Your task to perform on an android device: uninstall "PlayWell" Image 0: 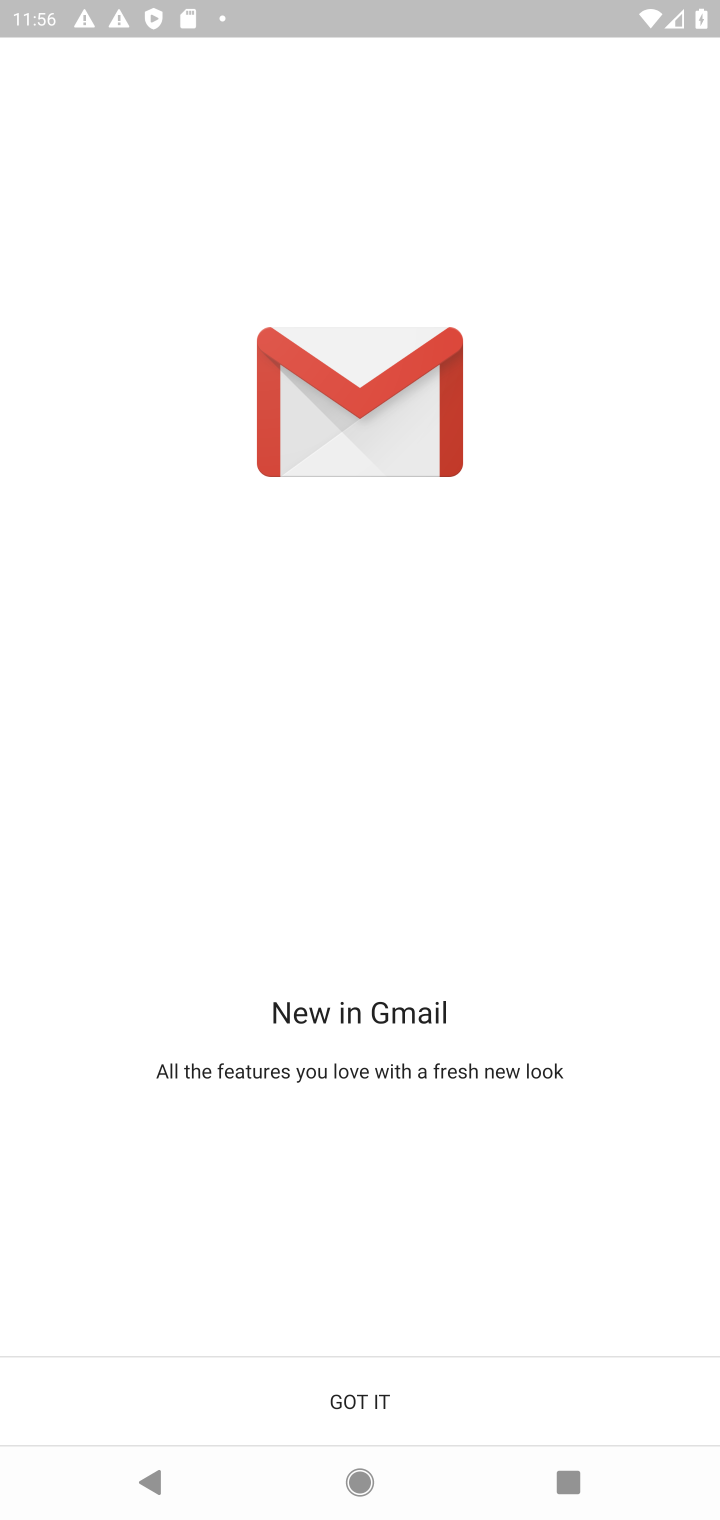
Step 0: press home button
Your task to perform on an android device: uninstall "PlayWell" Image 1: 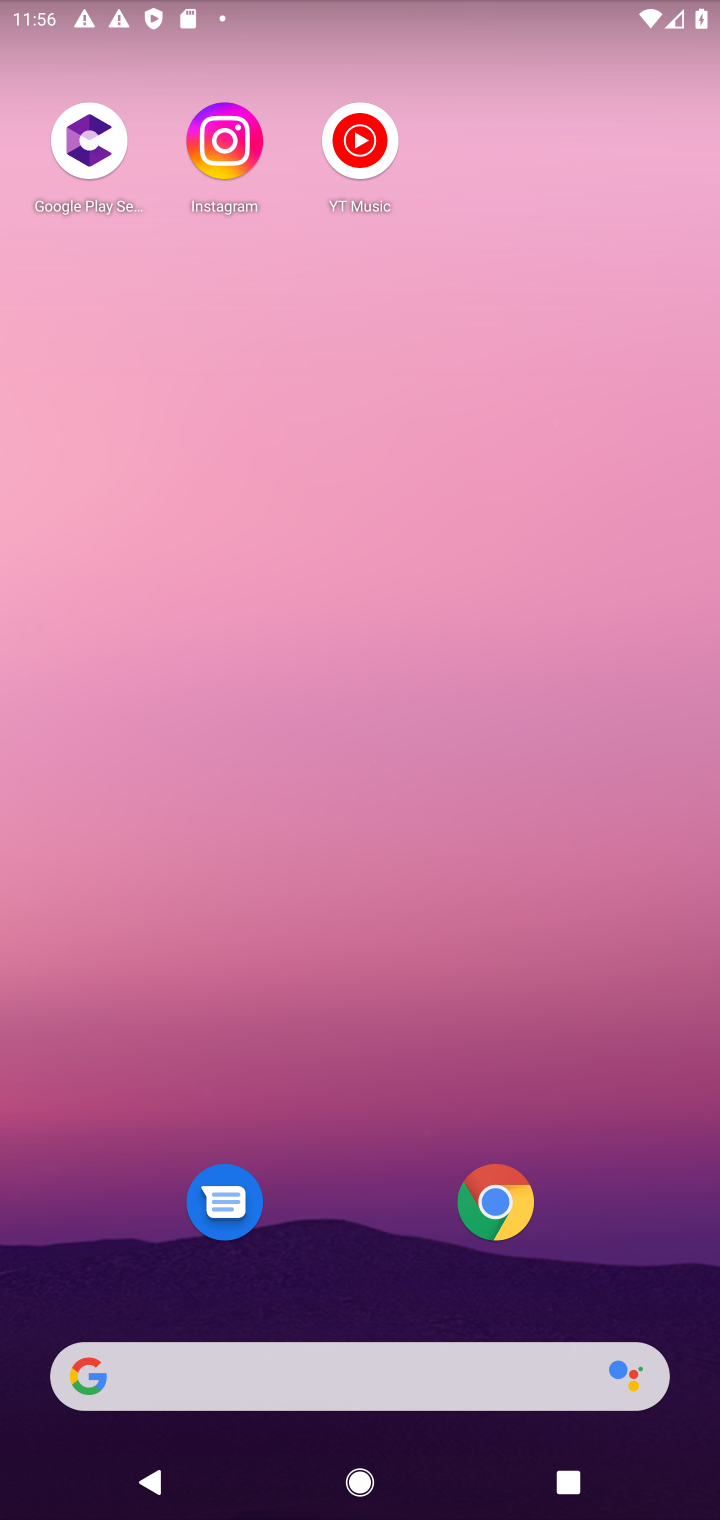
Step 1: drag from (467, 1440) to (429, 276)
Your task to perform on an android device: uninstall "PlayWell" Image 2: 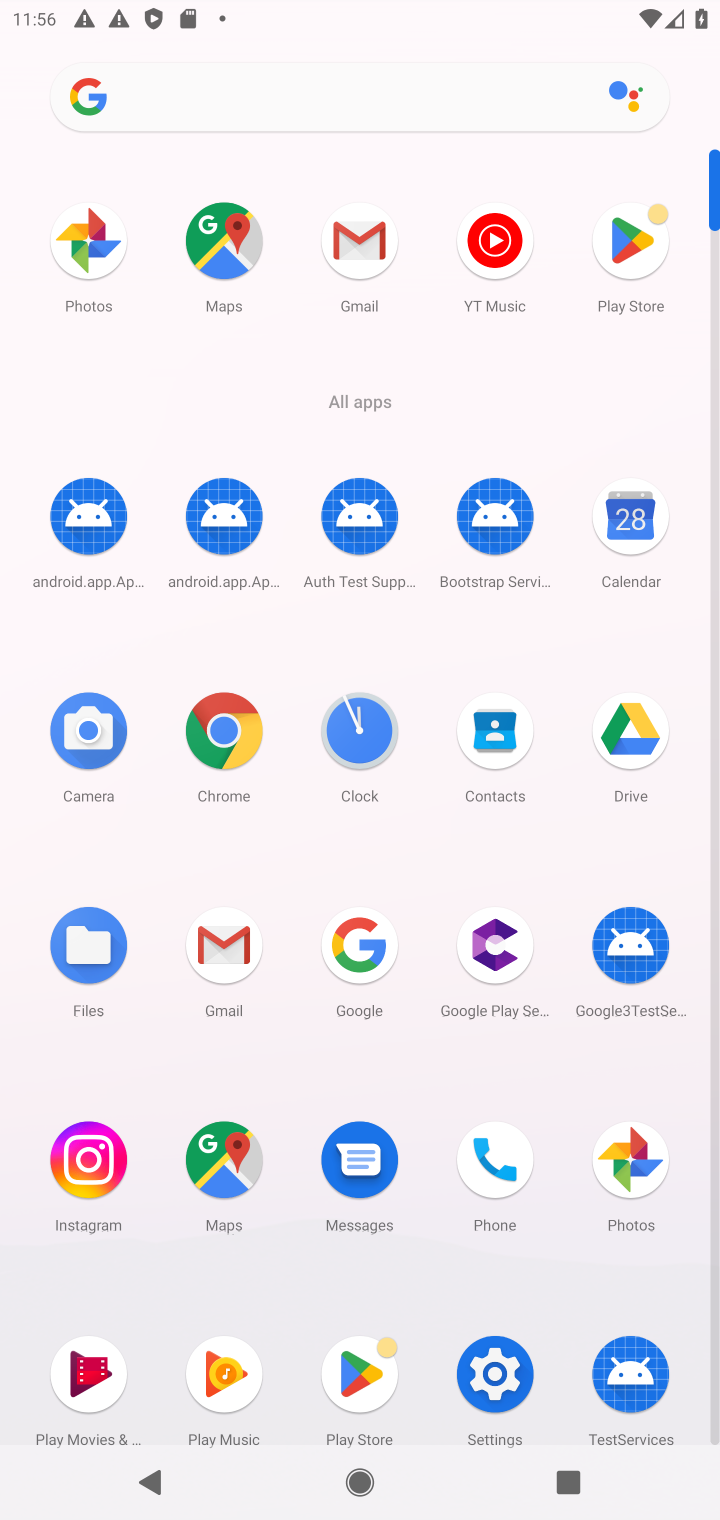
Step 2: click (641, 242)
Your task to perform on an android device: uninstall "PlayWell" Image 3: 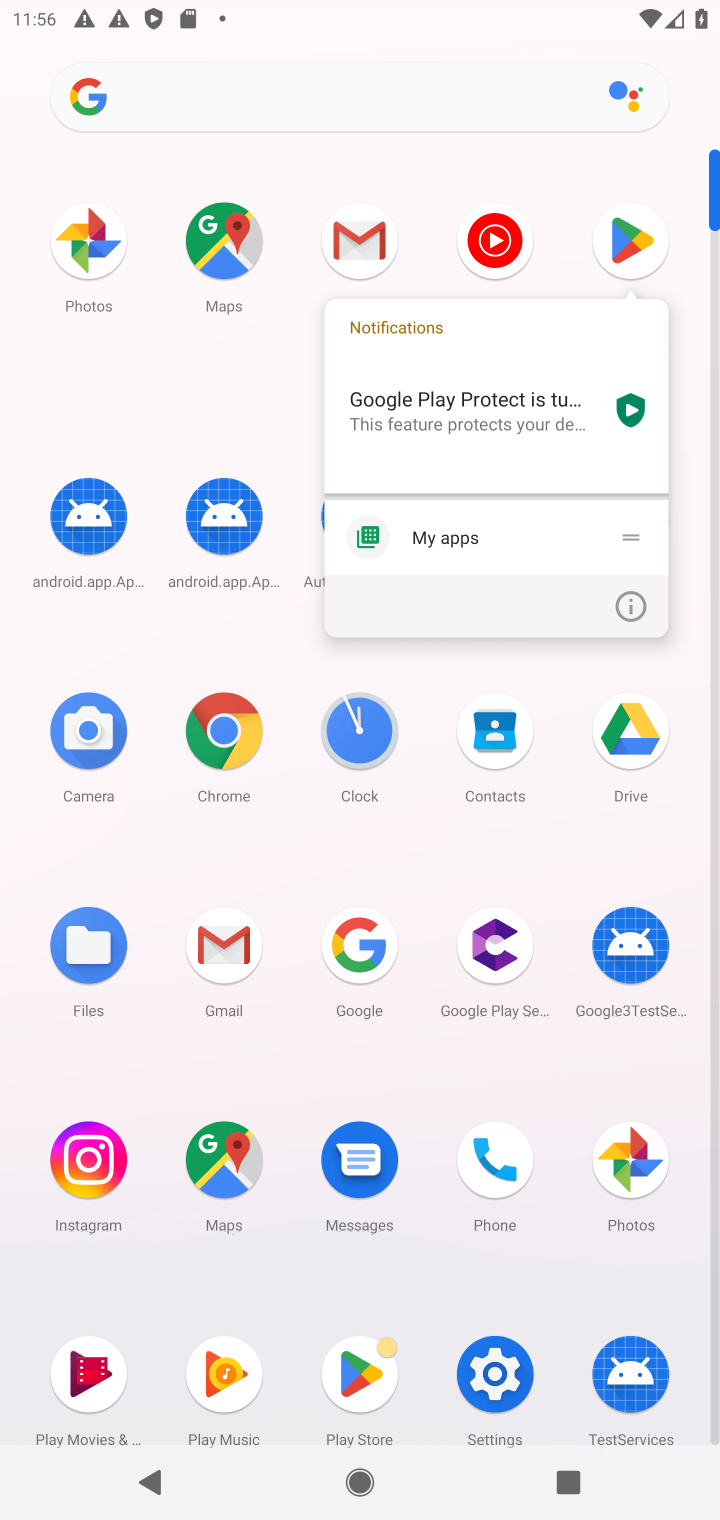
Step 3: click (641, 242)
Your task to perform on an android device: uninstall "PlayWell" Image 4: 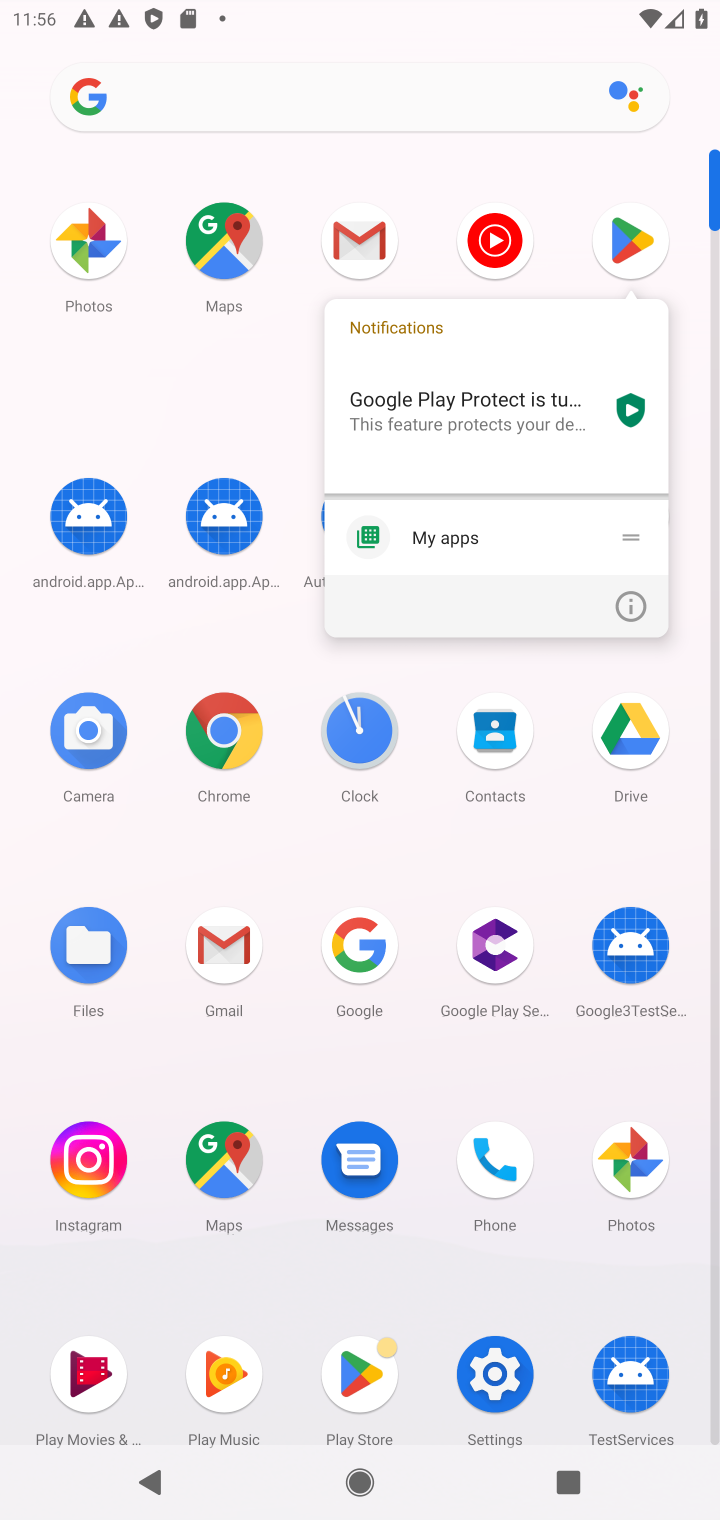
Step 4: click (631, 217)
Your task to perform on an android device: uninstall "PlayWell" Image 5: 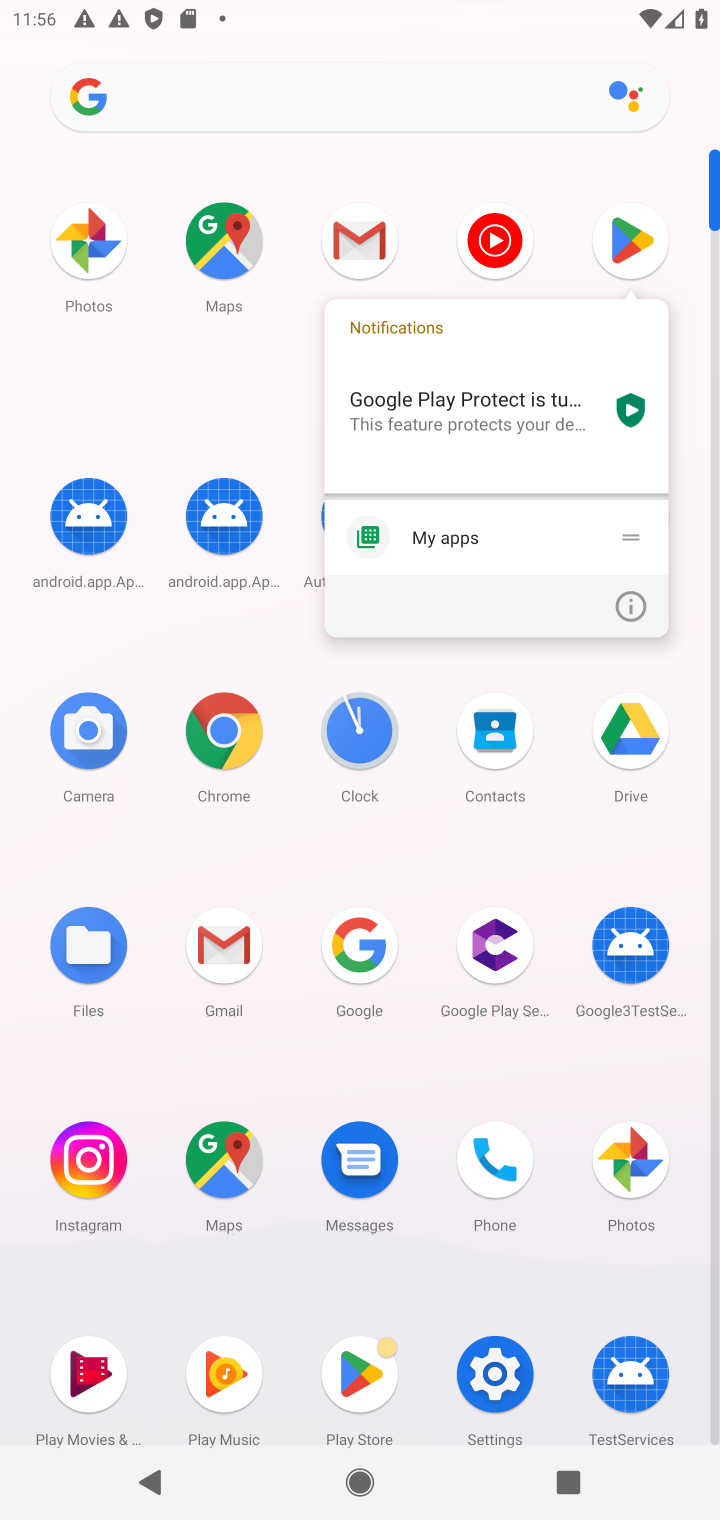
Step 5: click (631, 217)
Your task to perform on an android device: uninstall "PlayWell" Image 6: 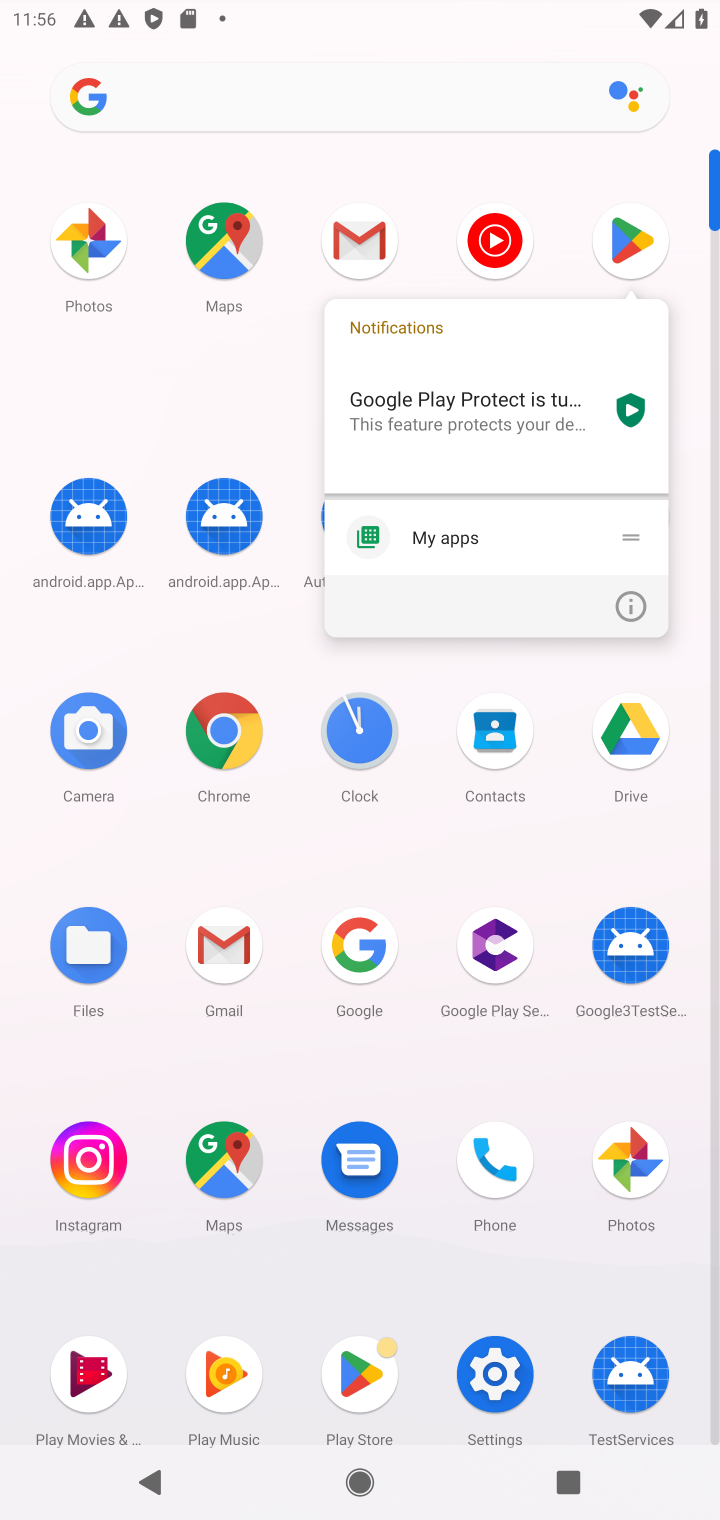
Step 6: click (625, 224)
Your task to perform on an android device: uninstall "PlayWell" Image 7: 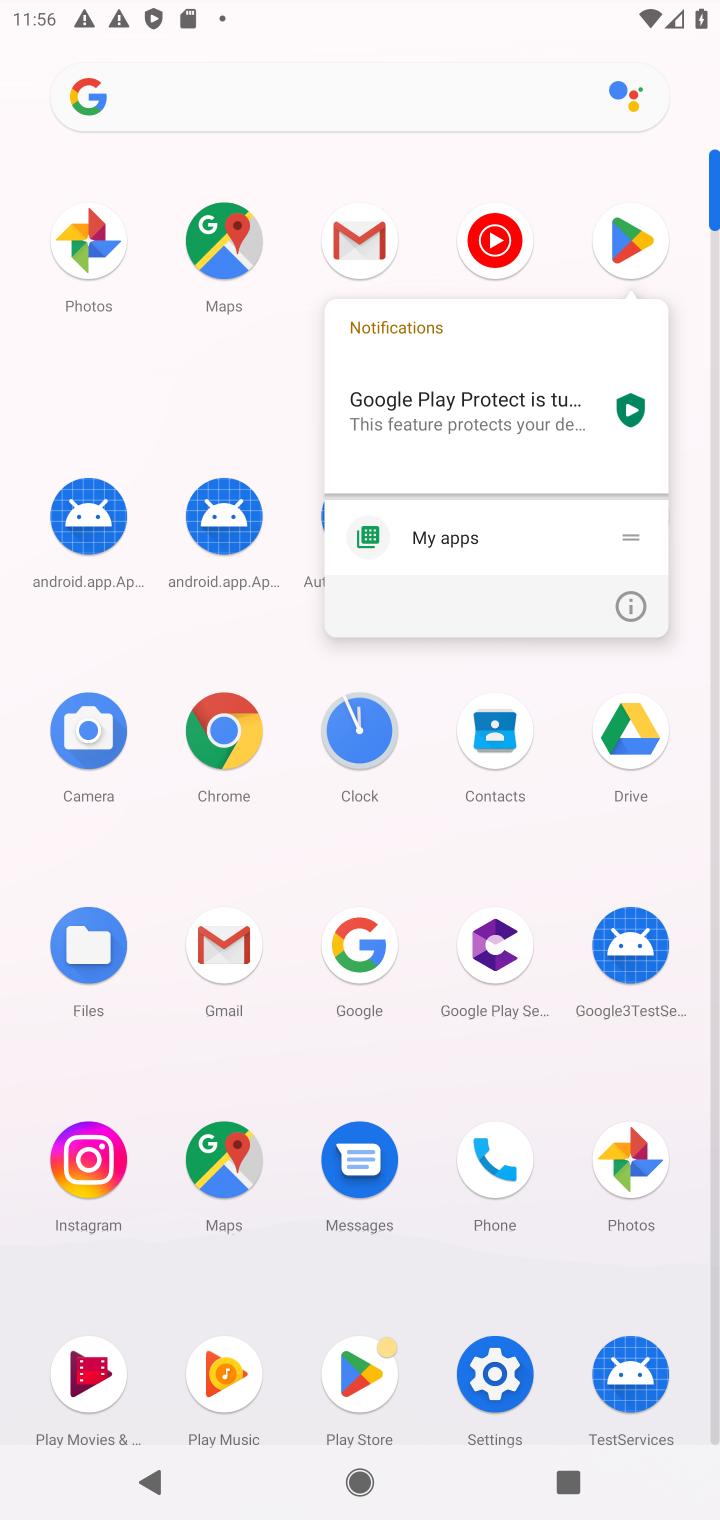
Step 7: click (625, 224)
Your task to perform on an android device: uninstall "PlayWell" Image 8: 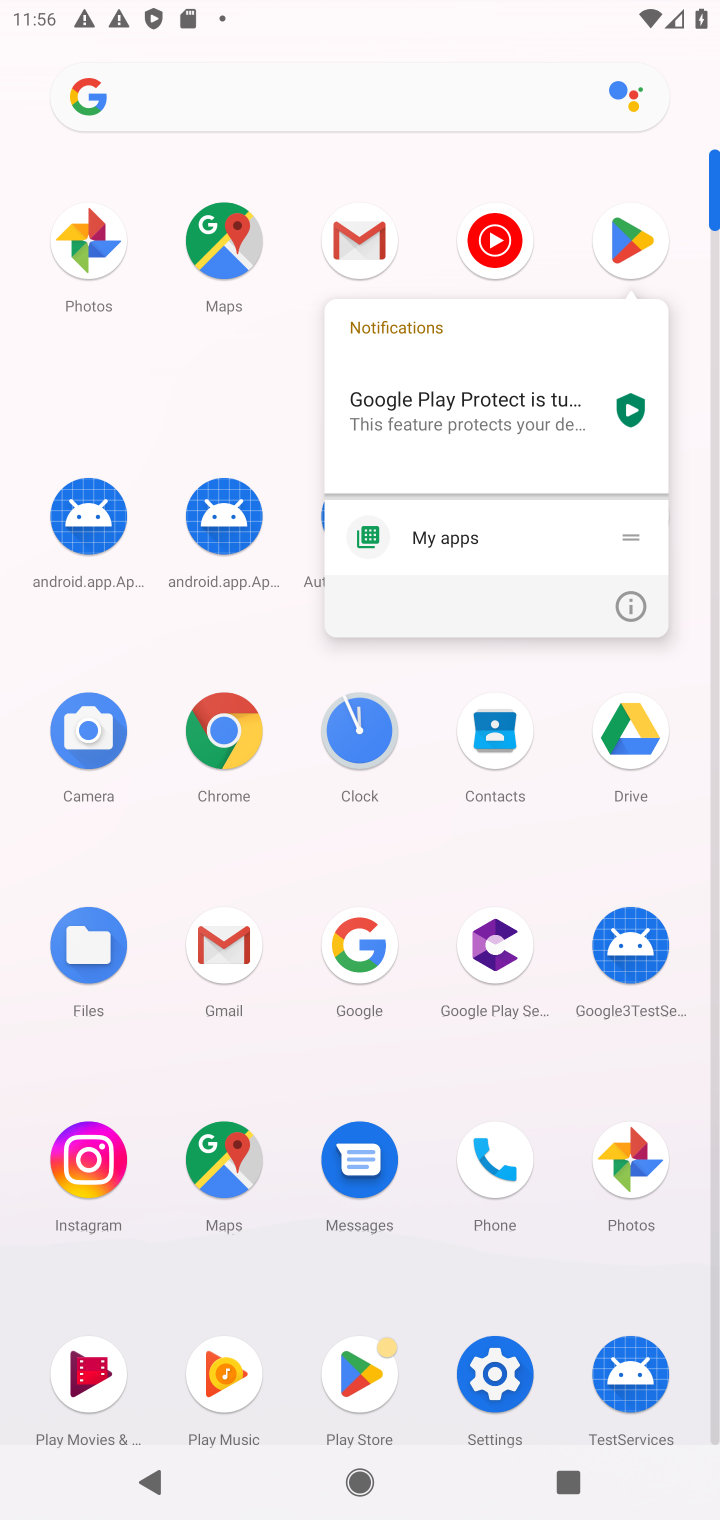
Step 8: click (625, 224)
Your task to perform on an android device: uninstall "PlayWell" Image 9: 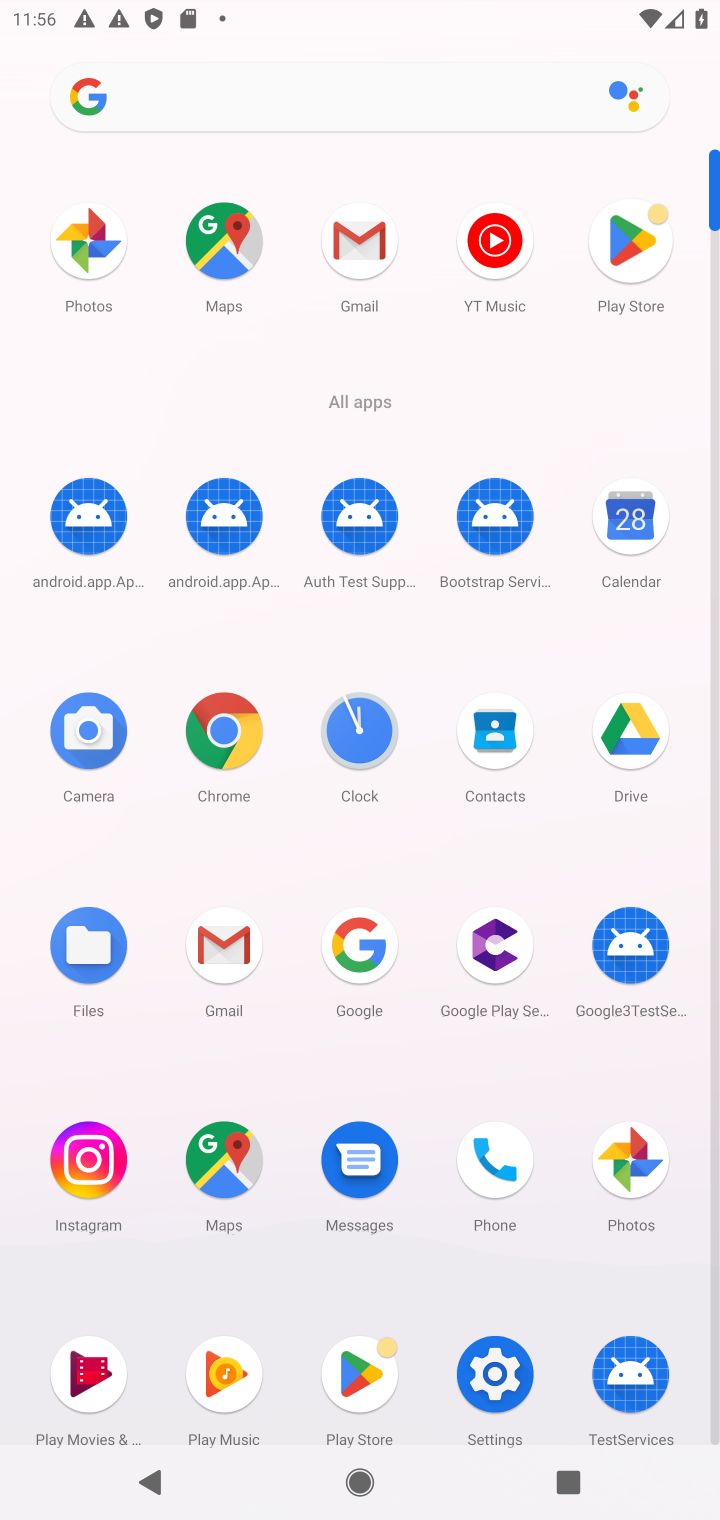
Step 9: click (625, 224)
Your task to perform on an android device: uninstall "PlayWell" Image 10: 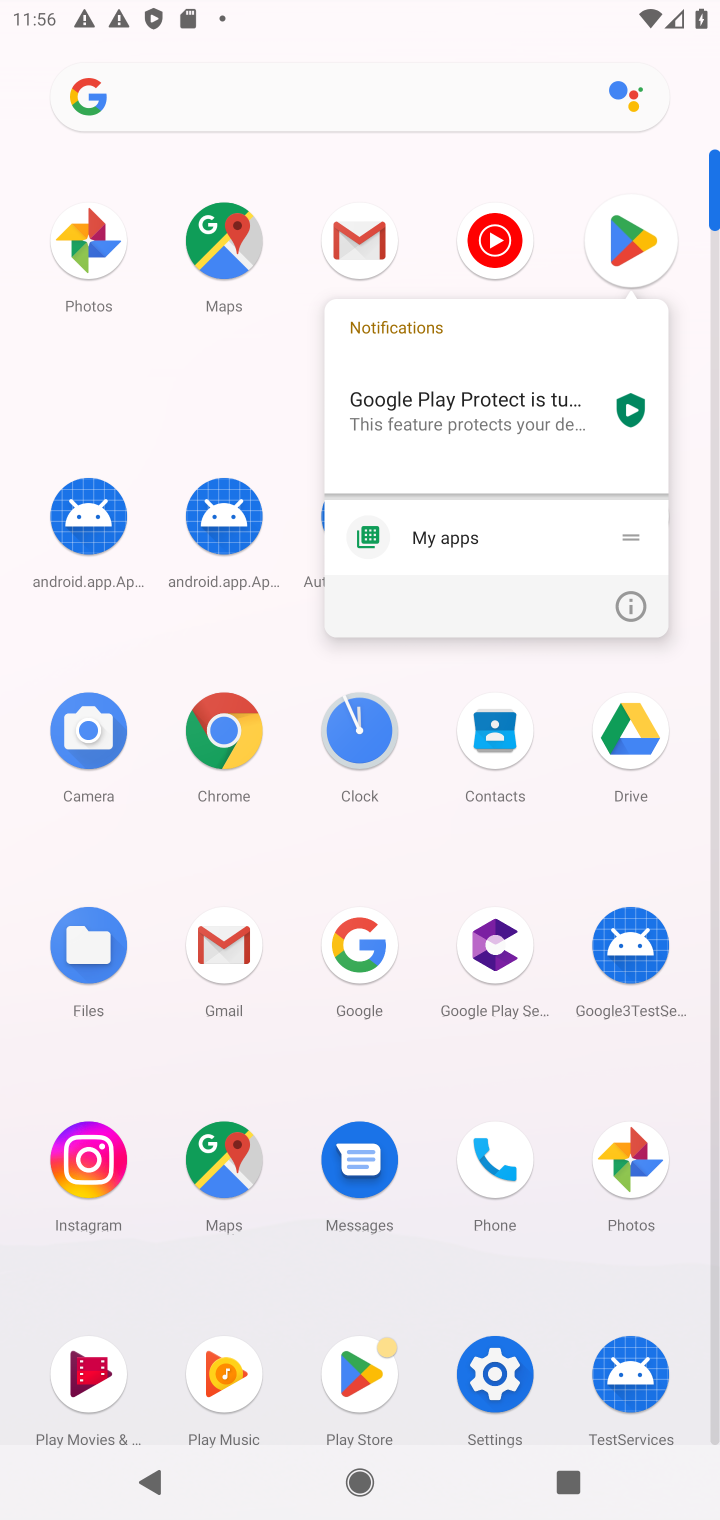
Step 10: click (625, 224)
Your task to perform on an android device: uninstall "PlayWell" Image 11: 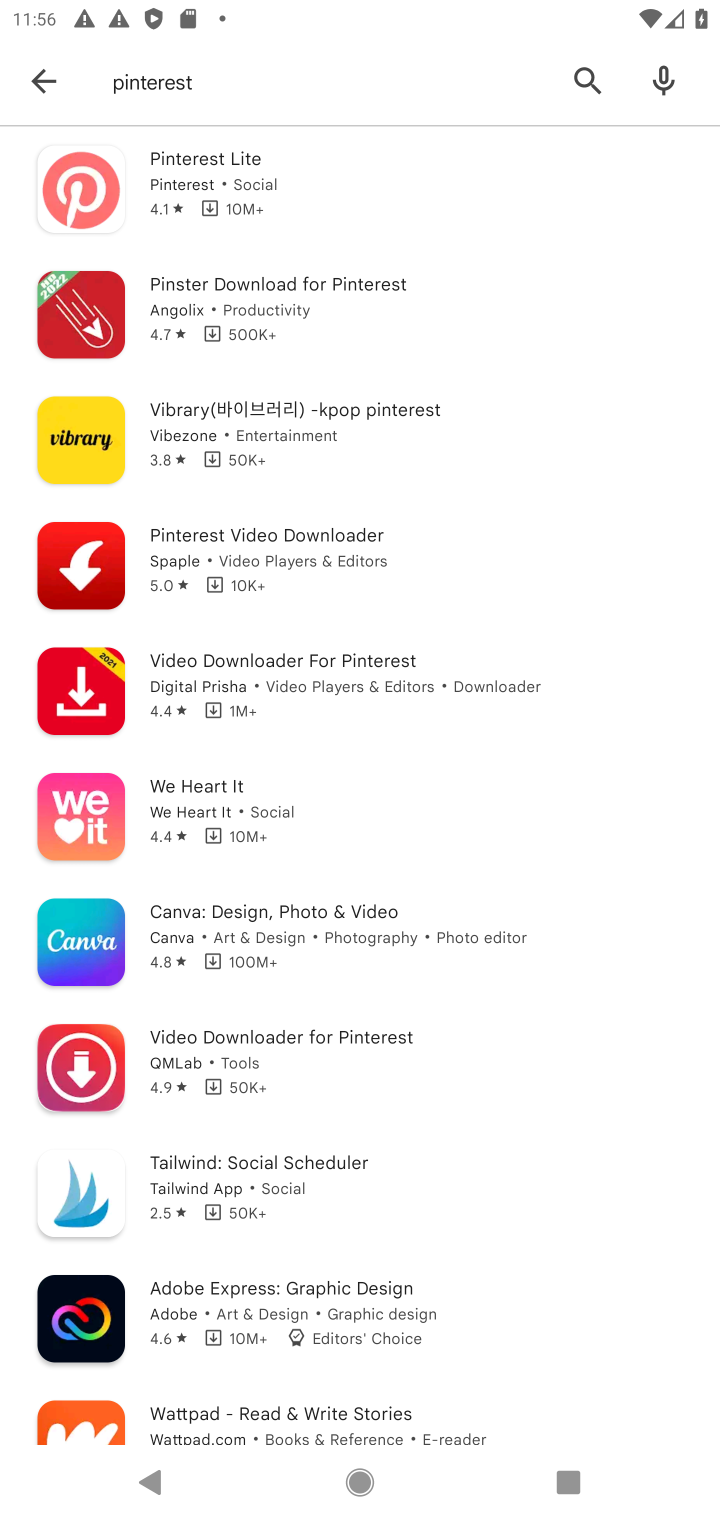
Step 11: click (583, 79)
Your task to perform on an android device: uninstall "PlayWell" Image 12: 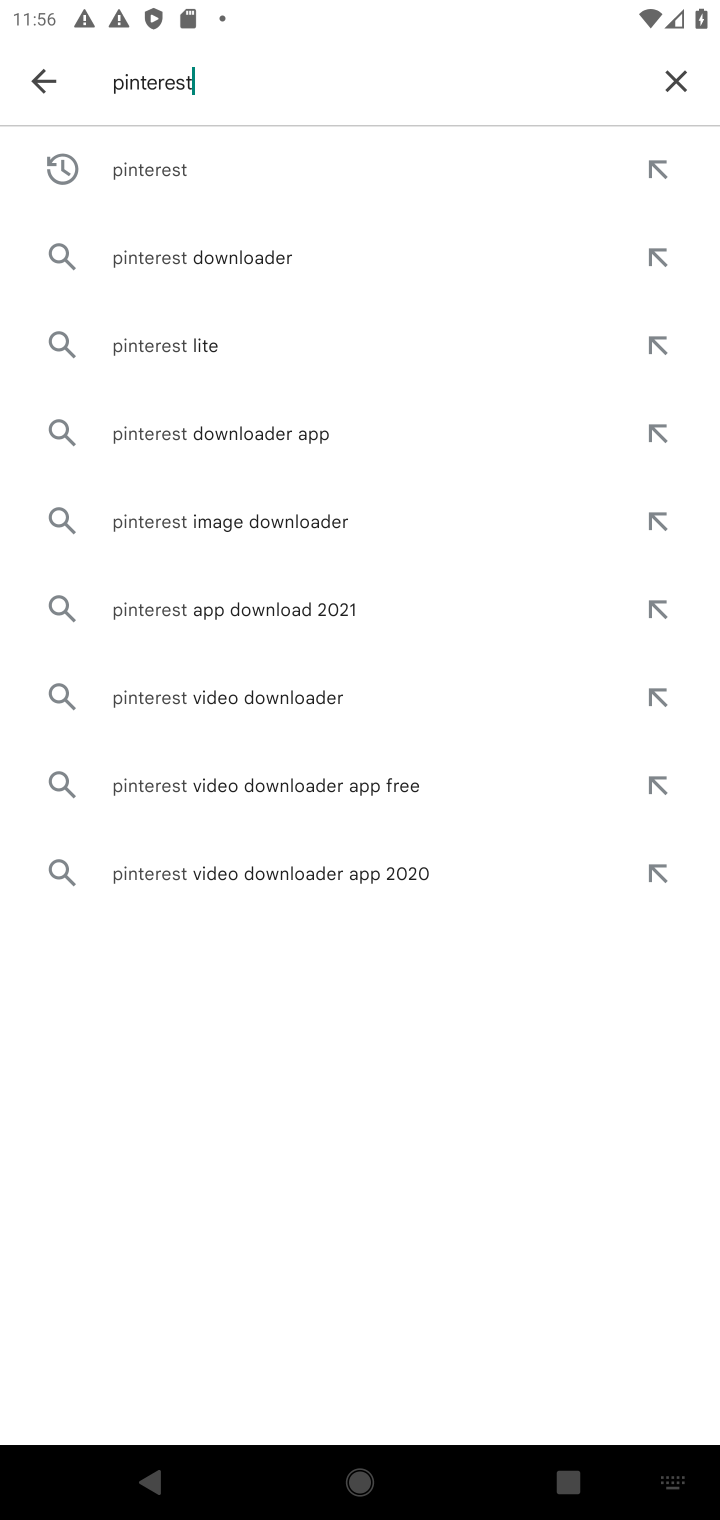
Step 12: click (679, 72)
Your task to perform on an android device: uninstall "PlayWell" Image 13: 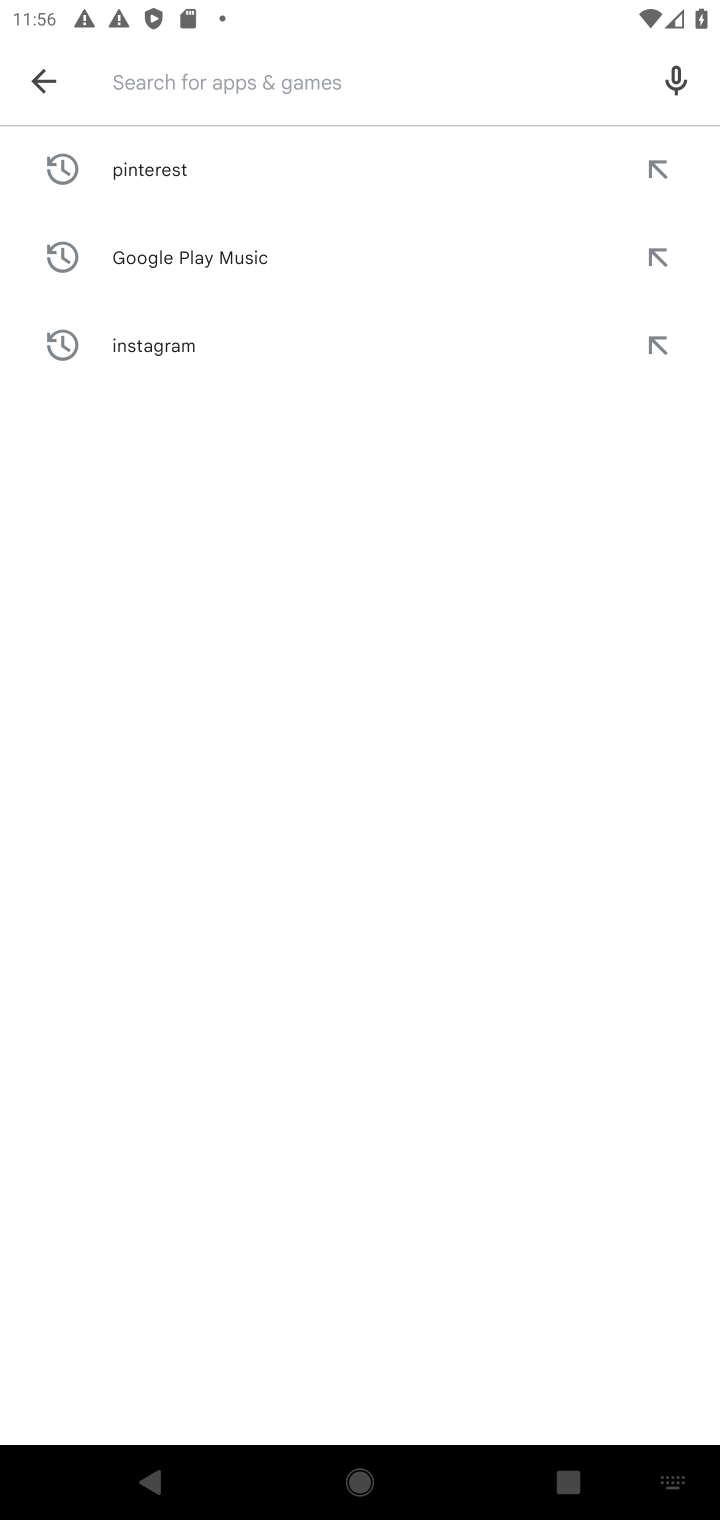
Step 13: type "PlayWell"
Your task to perform on an android device: uninstall "PlayWell" Image 14: 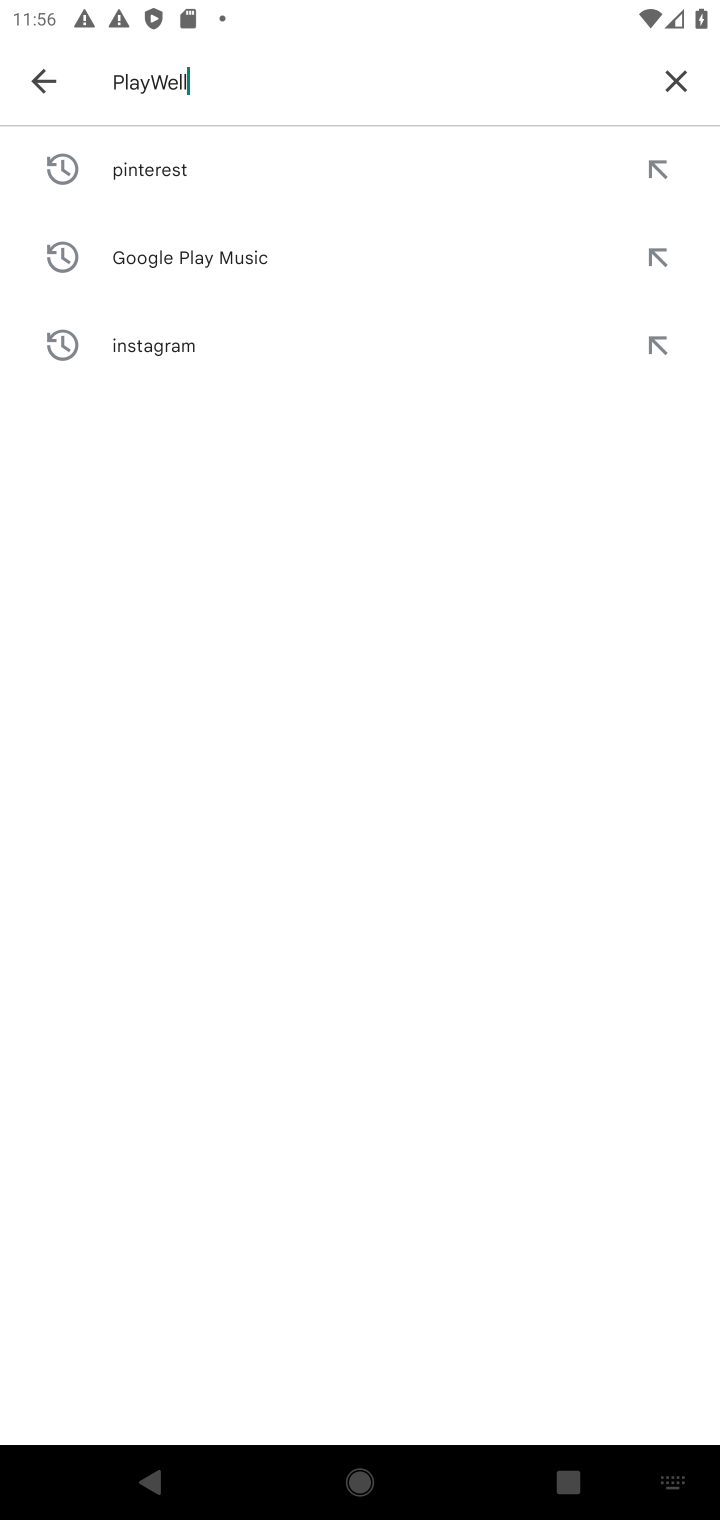
Step 14: type ""
Your task to perform on an android device: uninstall "PlayWell" Image 15: 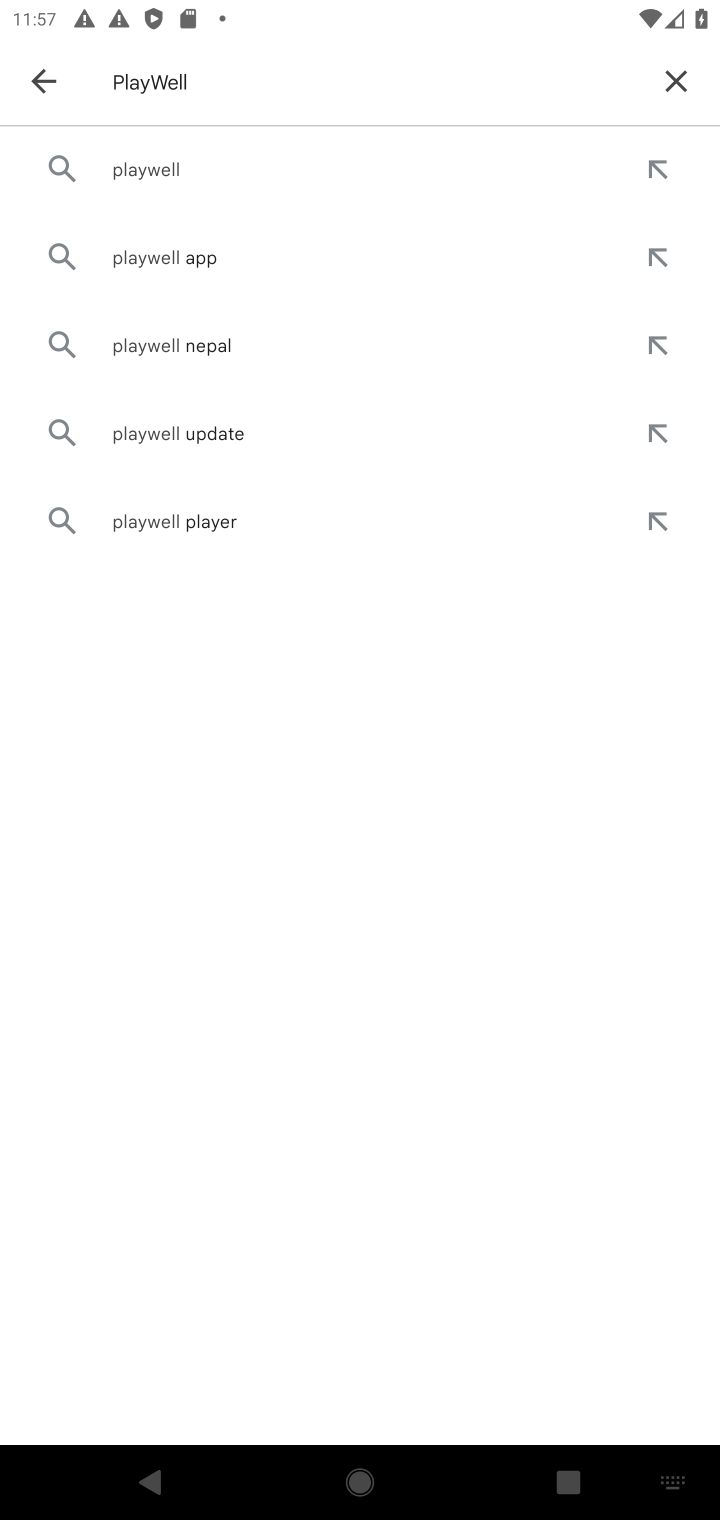
Step 15: click (157, 168)
Your task to perform on an android device: uninstall "PlayWell" Image 16: 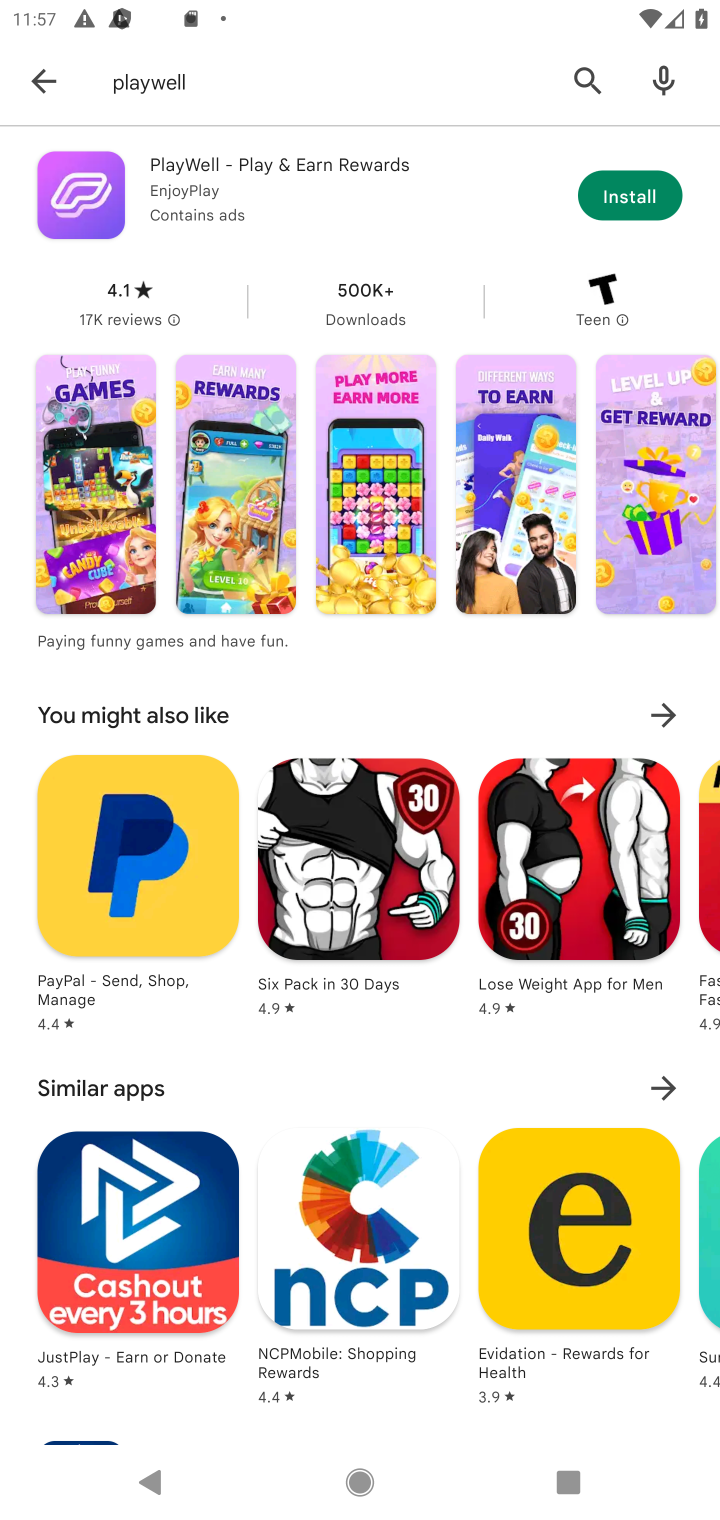
Step 16: task complete